Your task to perform on an android device: star an email in the gmail app Image 0: 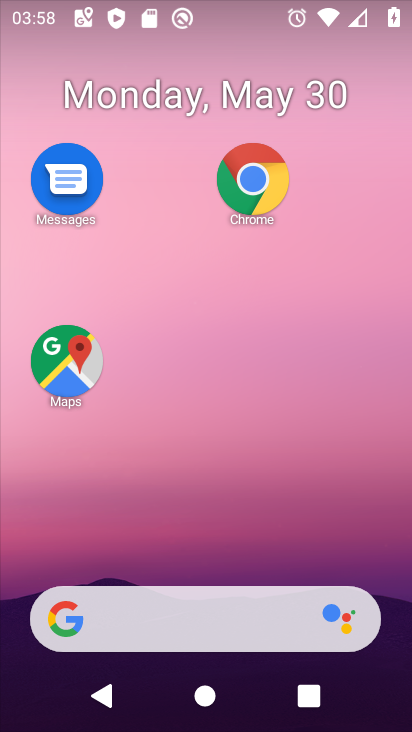
Step 0: drag from (237, 548) to (307, 1)
Your task to perform on an android device: star an email in the gmail app Image 1: 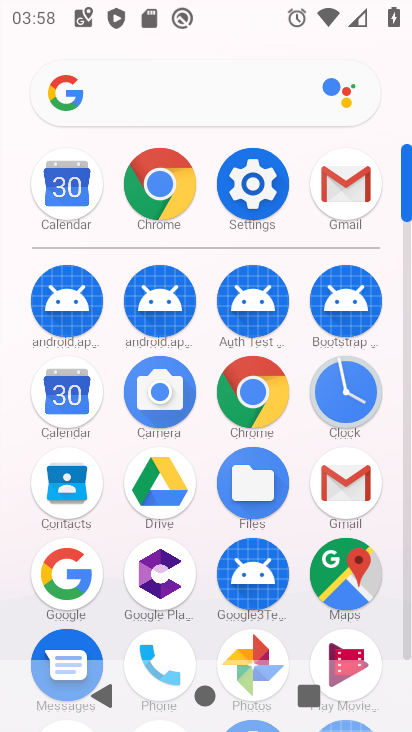
Step 1: click (327, 514)
Your task to perform on an android device: star an email in the gmail app Image 2: 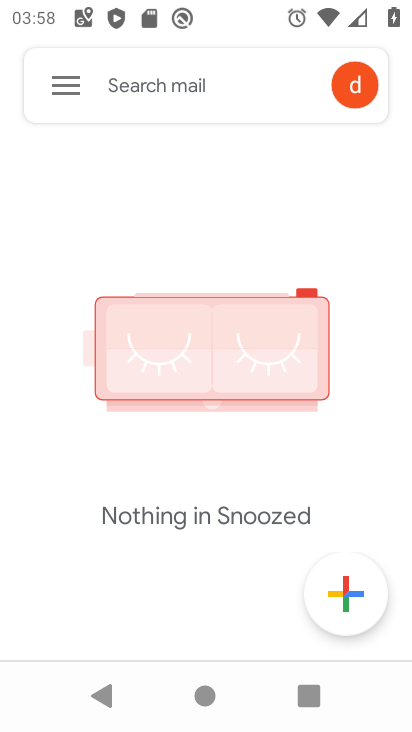
Step 2: click (73, 71)
Your task to perform on an android device: star an email in the gmail app Image 3: 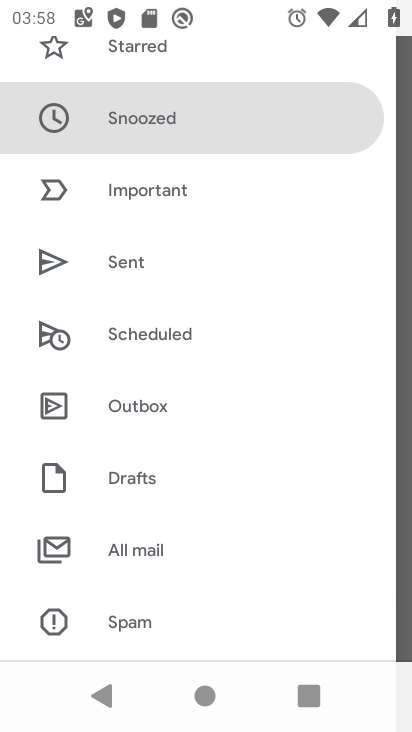
Step 3: drag from (165, 604) to (236, 281)
Your task to perform on an android device: star an email in the gmail app Image 4: 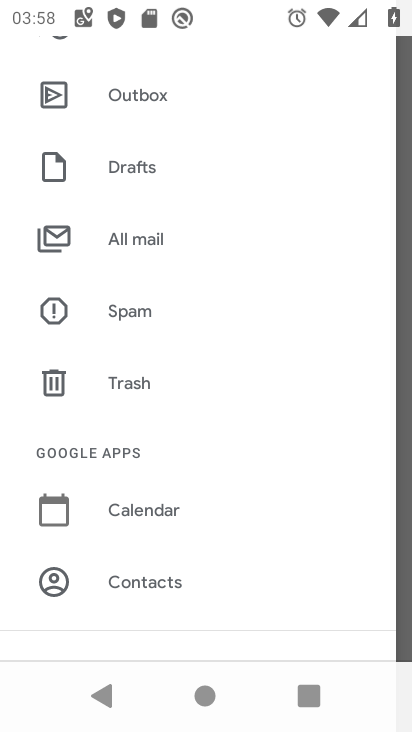
Step 4: click (139, 240)
Your task to perform on an android device: star an email in the gmail app Image 5: 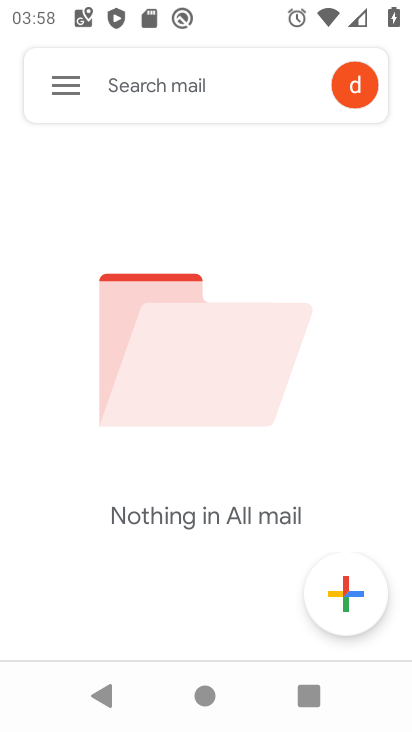
Step 5: task complete